Your task to perform on an android device: make emails show in primary in the gmail app Image 0: 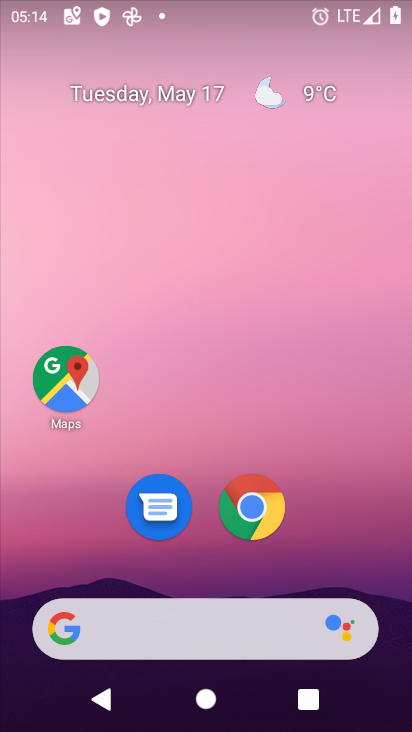
Step 0: drag from (320, 344) to (272, 81)
Your task to perform on an android device: make emails show in primary in the gmail app Image 1: 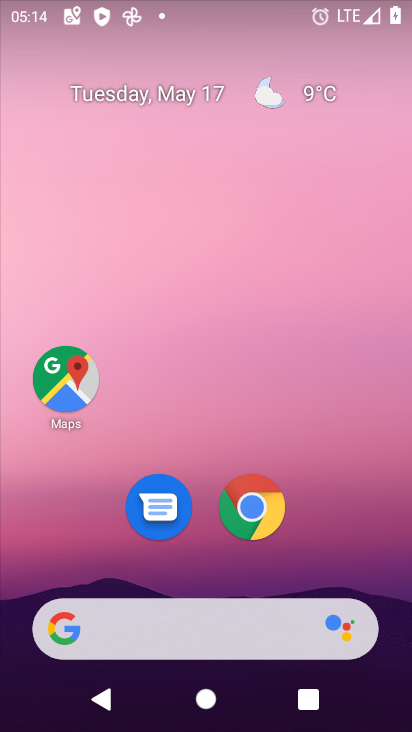
Step 1: drag from (320, 482) to (252, 22)
Your task to perform on an android device: make emails show in primary in the gmail app Image 2: 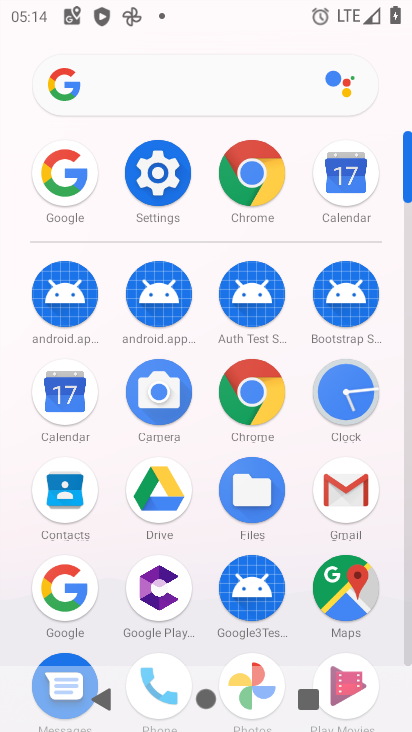
Step 2: click (352, 491)
Your task to perform on an android device: make emails show in primary in the gmail app Image 3: 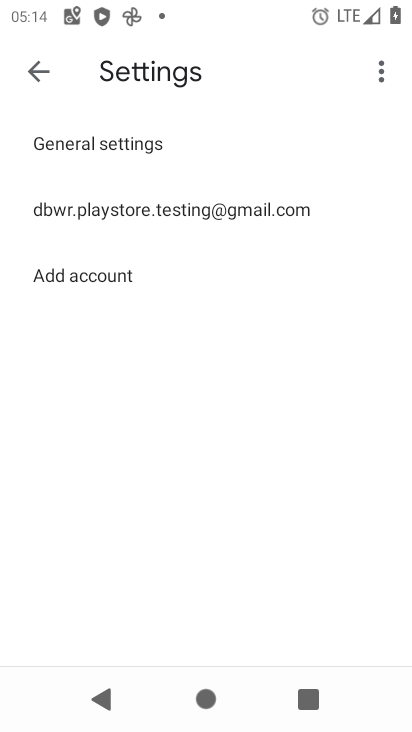
Step 3: click (47, 72)
Your task to perform on an android device: make emails show in primary in the gmail app Image 4: 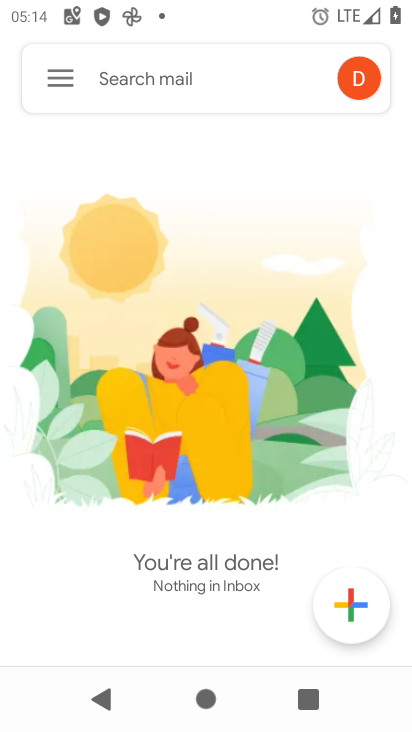
Step 4: click (63, 83)
Your task to perform on an android device: make emails show in primary in the gmail app Image 5: 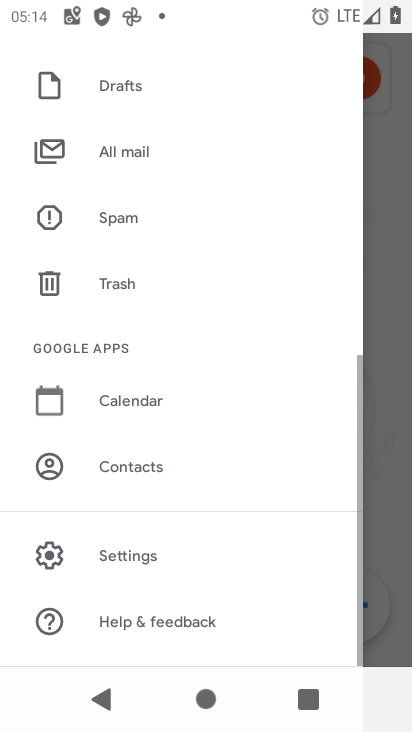
Step 5: drag from (223, 143) to (198, 673)
Your task to perform on an android device: make emails show in primary in the gmail app Image 6: 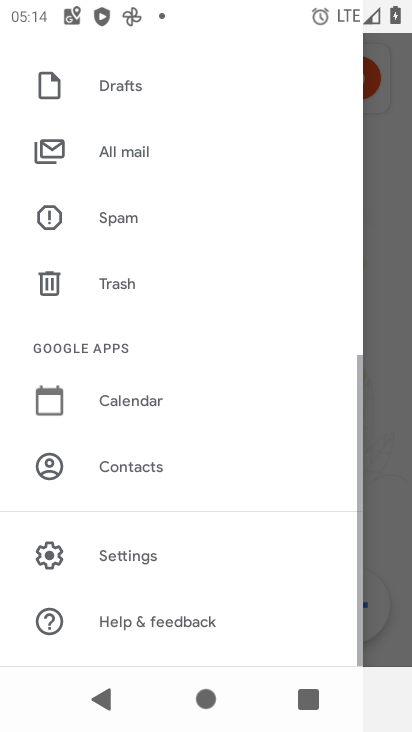
Step 6: drag from (206, 168) to (231, 574)
Your task to perform on an android device: make emails show in primary in the gmail app Image 7: 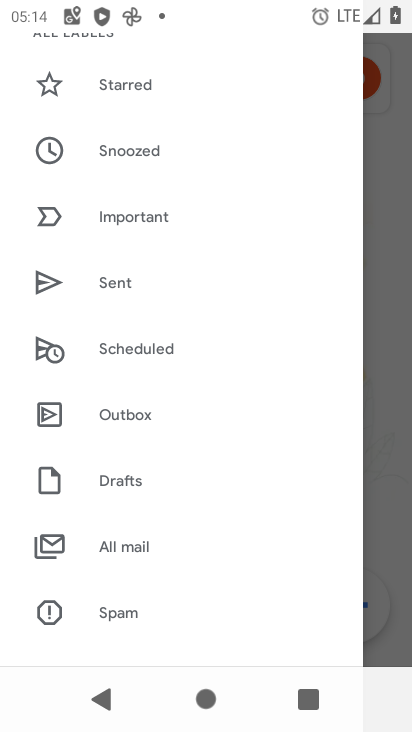
Step 7: drag from (198, 148) to (217, 557)
Your task to perform on an android device: make emails show in primary in the gmail app Image 8: 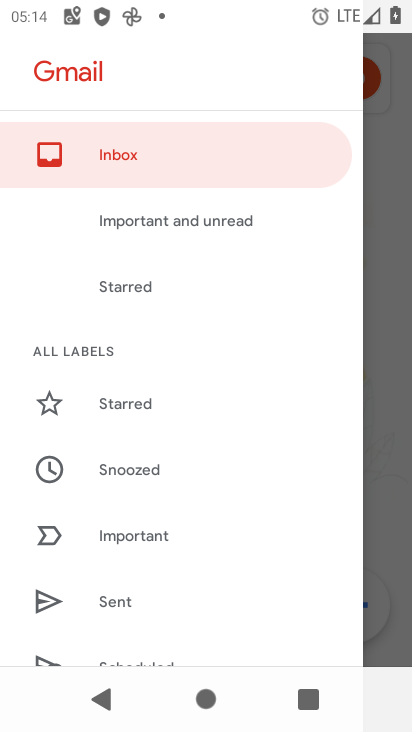
Step 8: drag from (204, 301) to (219, 521)
Your task to perform on an android device: make emails show in primary in the gmail app Image 9: 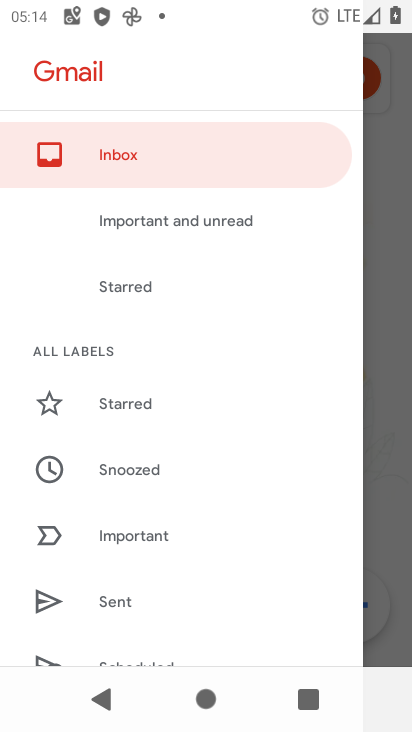
Step 9: click (386, 476)
Your task to perform on an android device: make emails show in primary in the gmail app Image 10: 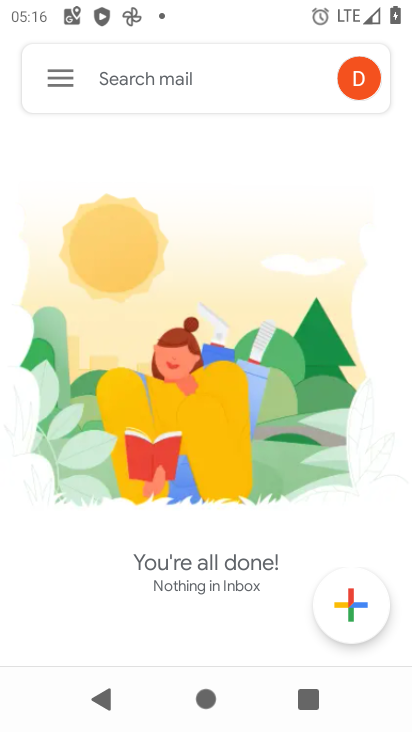
Step 10: click (54, 72)
Your task to perform on an android device: make emails show in primary in the gmail app Image 11: 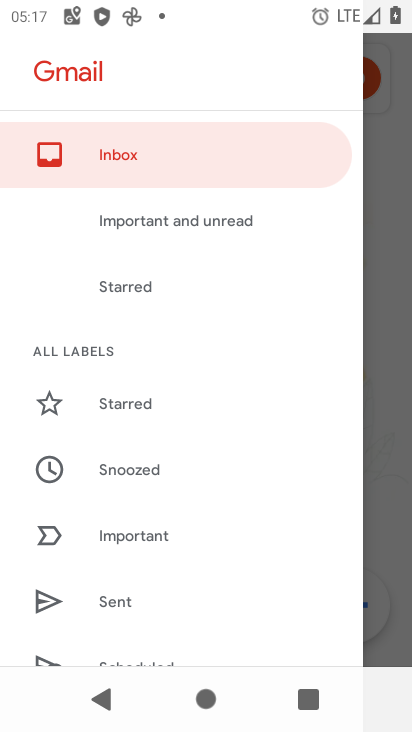
Step 11: task complete